Your task to perform on an android device: Play the last video I watched on Youtube Image 0: 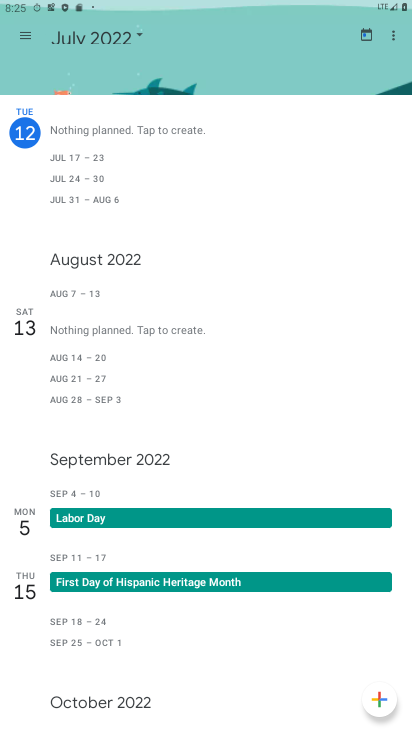
Step 0: press home button
Your task to perform on an android device: Play the last video I watched on Youtube Image 1: 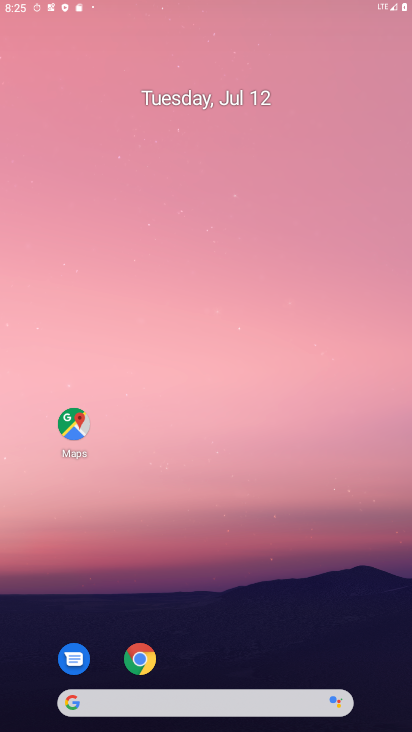
Step 1: drag from (375, 668) to (238, 49)
Your task to perform on an android device: Play the last video I watched on Youtube Image 2: 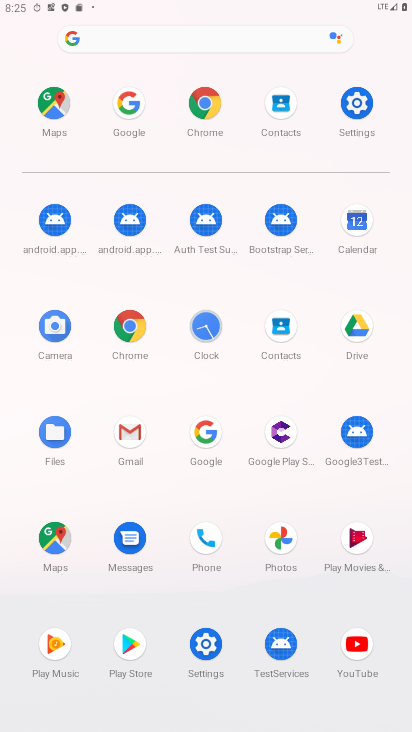
Step 2: click (354, 637)
Your task to perform on an android device: Play the last video I watched on Youtube Image 3: 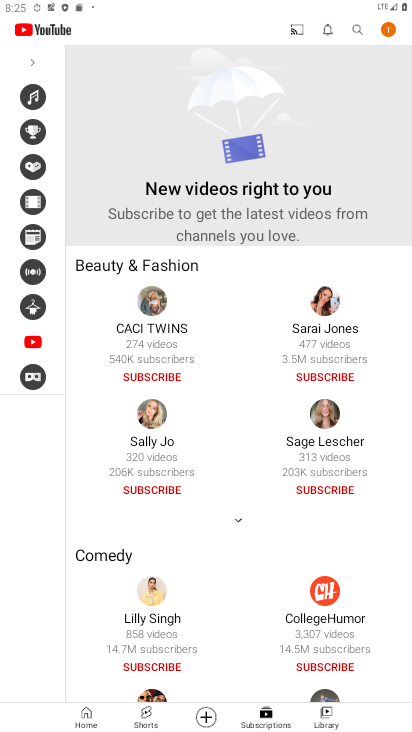
Step 3: task complete